Your task to perform on an android device: remove spam from my inbox in the gmail app Image 0: 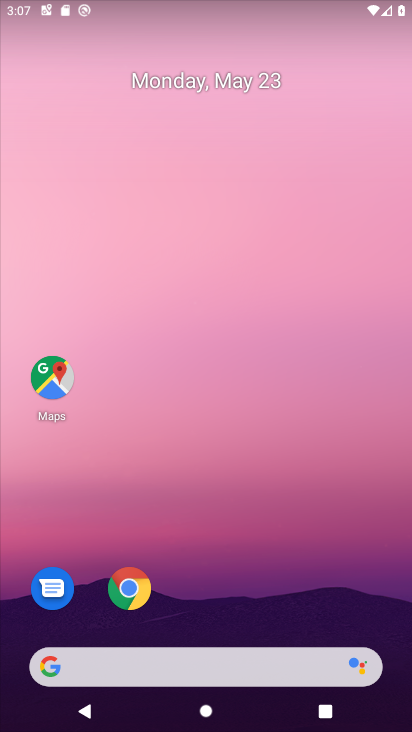
Step 0: drag from (195, 567) to (236, 197)
Your task to perform on an android device: remove spam from my inbox in the gmail app Image 1: 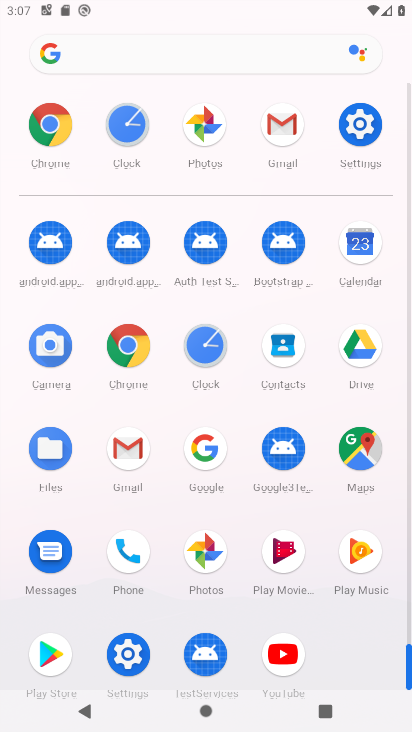
Step 1: click (136, 445)
Your task to perform on an android device: remove spam from my inbox in the gmail app Image 2: 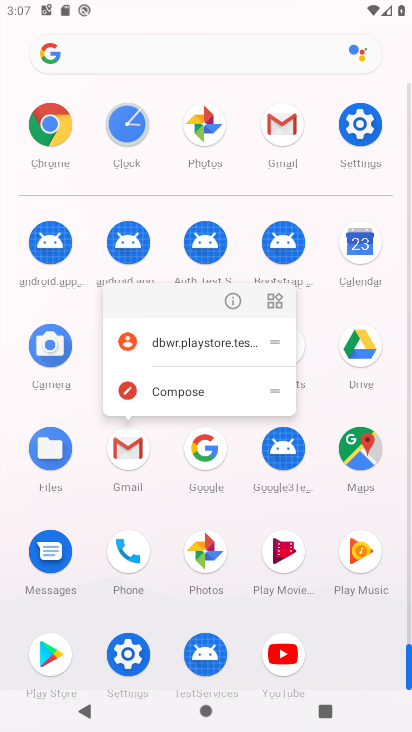
Step 2: click (207, 336)
Your task to perform on an android device: remove spam from my inbox in the gmail app Image 3: 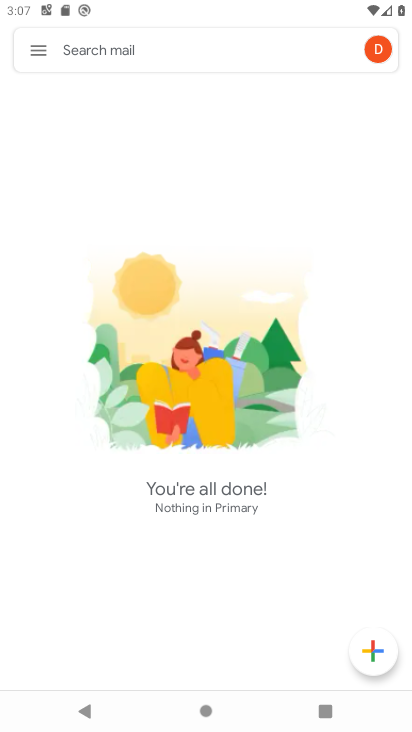
Step 3: click (35, 55)
Your task to perform on an android device: remove spam from my inbox in the gmail app Image 4: 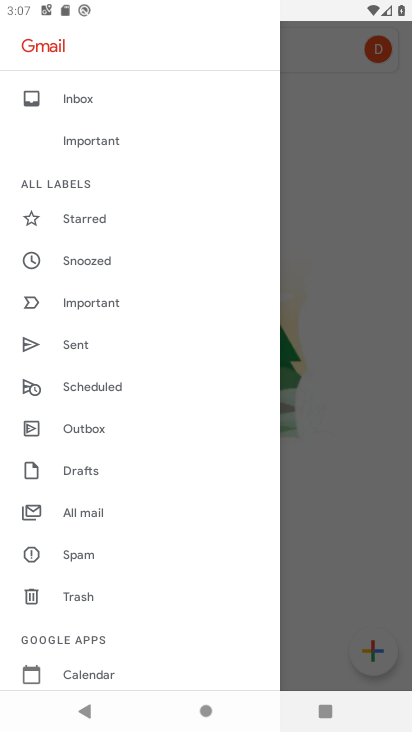
Step 4: drag from (110, 589) to (127, 196)
Your task to perform on an android device: remove spam from my inbox in the gmail app Image 5: 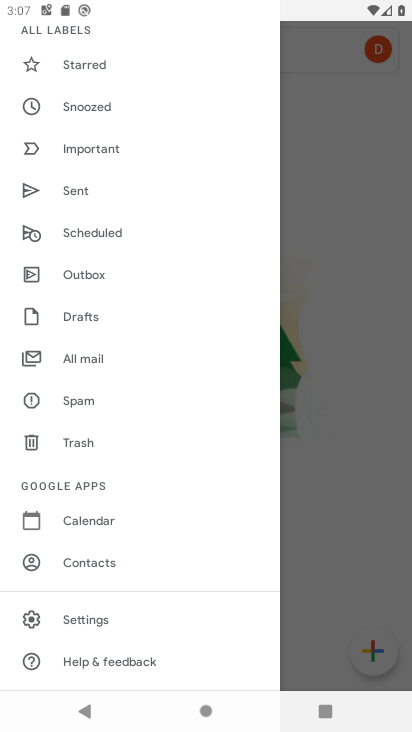
Step 5: drag from (125, 225) to (174, 475)
Your task to perform on an android device: remove spam from my inbox in the gmail app Image 6: 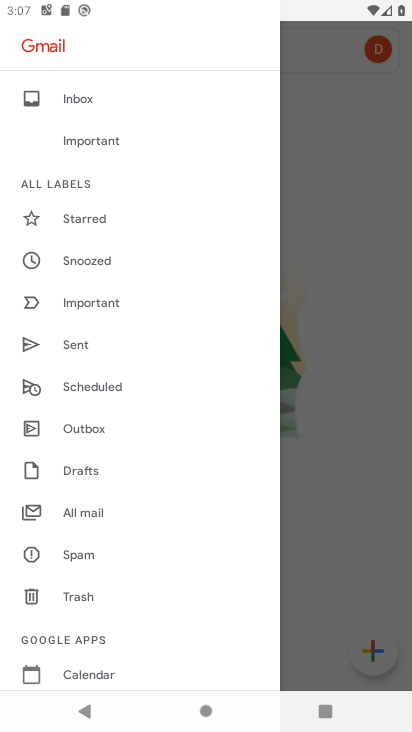
Step 6: click (85, 560)
Your task to perform on an android device: remove spam from my inbox in the gmail app Image 7: 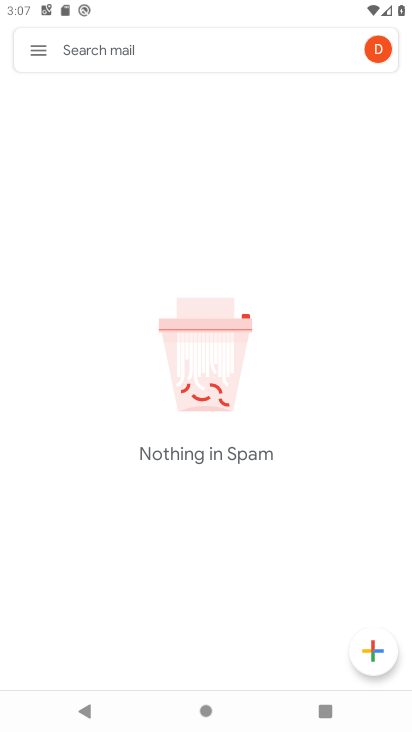
Step 7: task complete